Your task to perform on an android device: turn on bluetooth scan Image 0: 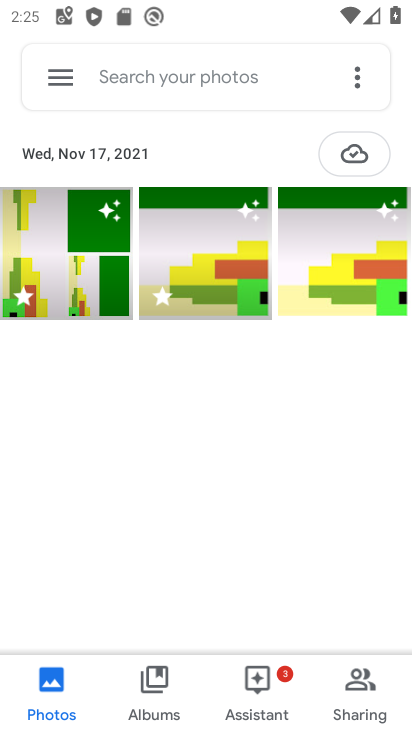
Step 0: press home button
Your task to perform on an android device: turn on bluetooth scan Image 1: 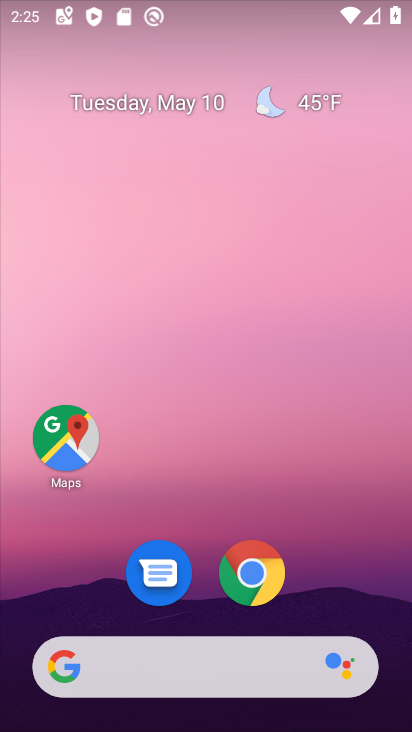
Step 1: drag from (213, 610) to (243, 162)
Your task to perform on an android device: turn on bluetooth scan Image 2: 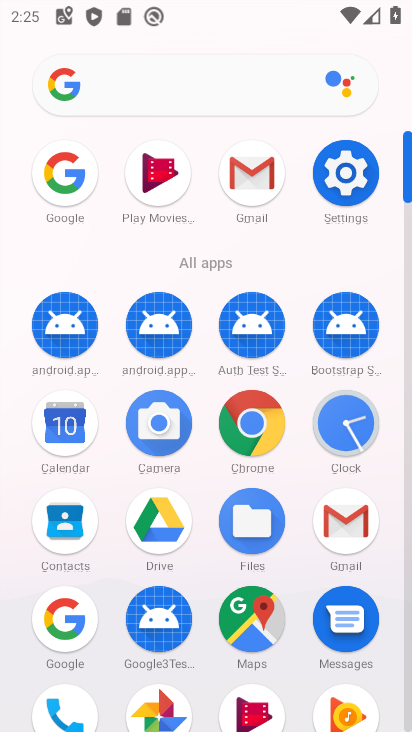
Step 2: click (322, 165)
Your task to perform on an android device: turn on bluetooth scan Image 3: 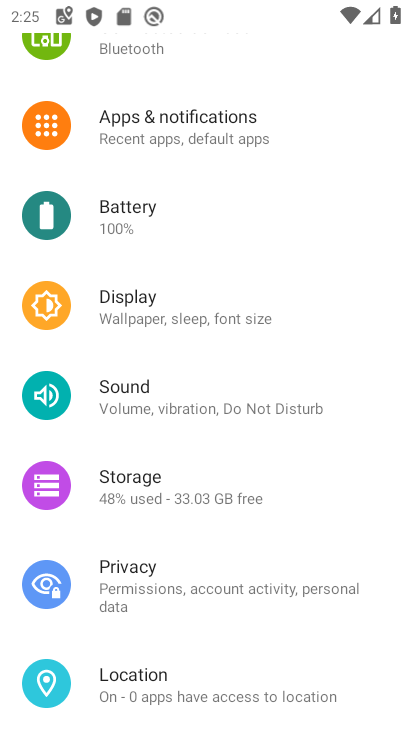
Step 3: drag from (184, 226) to (193, 544)
Your task to perform on an android device: turn on bluetooth scan Image 4: 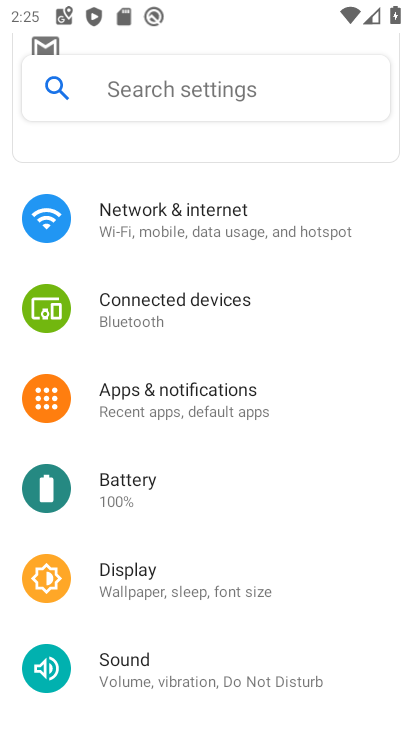
Step 4: drag from (214, 631) to (242, 342)
Your task to perform on an android device: turn on bluetooth scan Image 5: 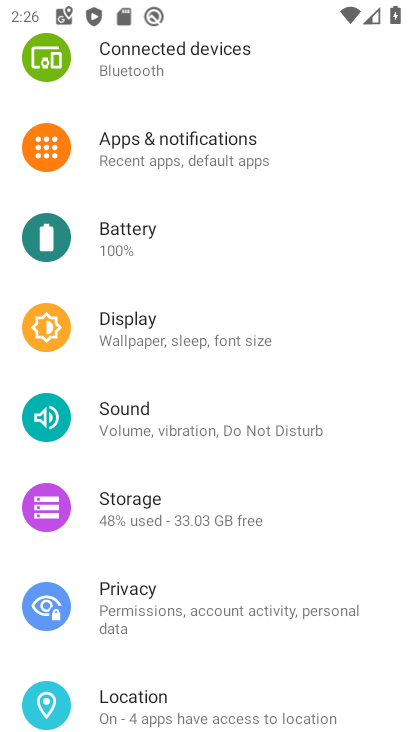
Step 5: click (178, 693)
Your task to perform on an android device: turn on bluetooth scan Image 6: 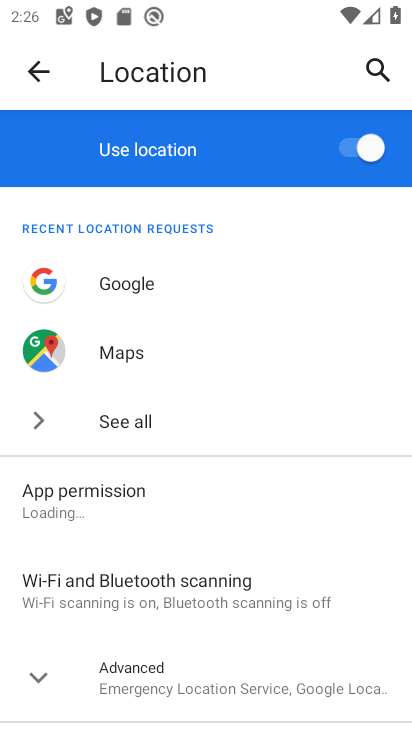
Step 6: click (178, 615)
Your task to perform on an android device: turn on bluetooth scan Image 7: 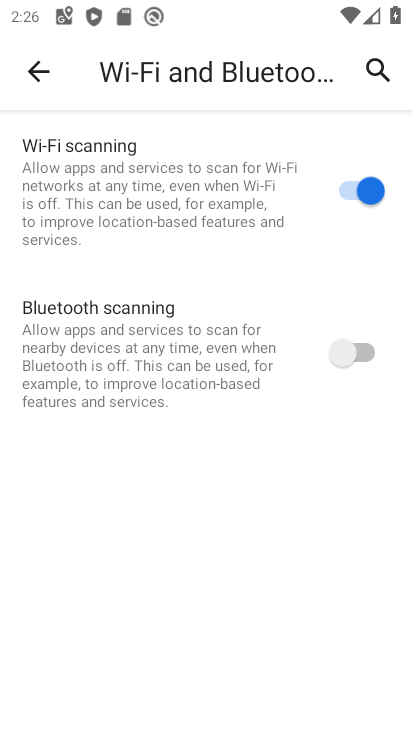
Step 7: click (376, 346)
Your task to perform on an android device: turn on bluetooth scan Image 8: 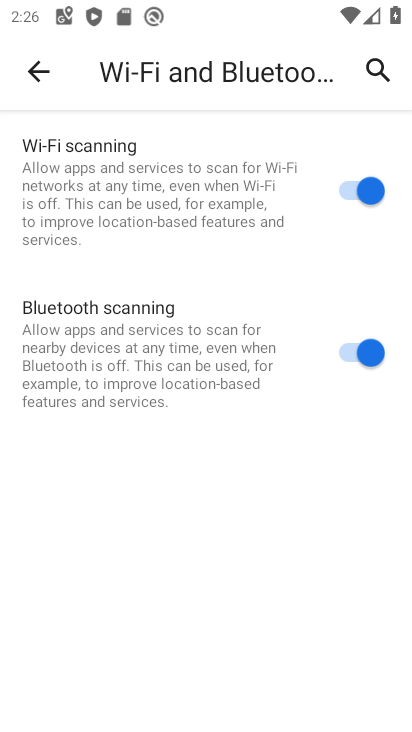
Step 8: task complete